Your task to perform on an android device: move an email to a new category in the gmail app Image 0: 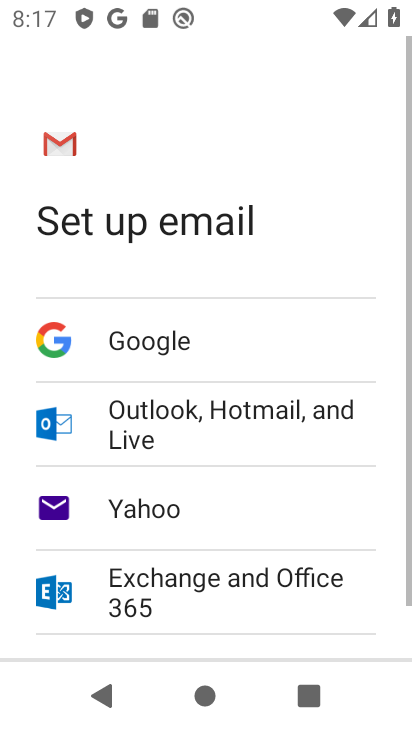
Step 0: press back button
Your task to perform on an android device: move an email to a new category in the gmail app Image 1: 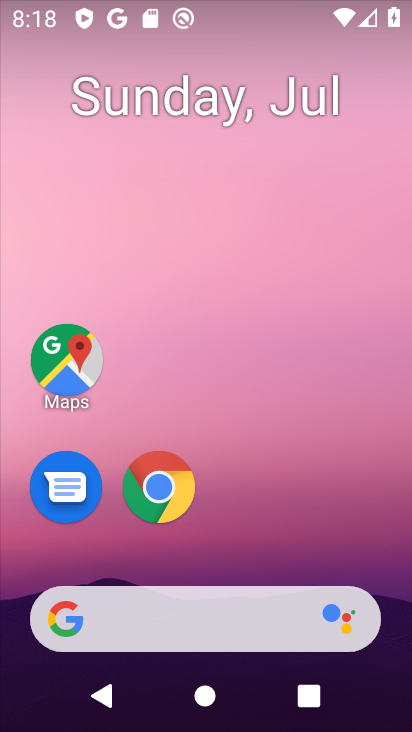
Step 1: drag from (253, 547) to (318, 63)
Your task to perform on an android device: move an email to a new category in the gmail app Image 2: 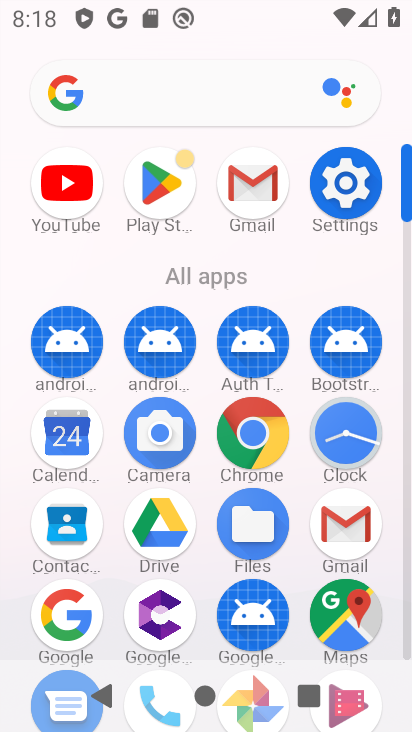
Step 2: click (265, 168)
Your task to perform on an android device: move an email to a new category in the gmail app Image 3: 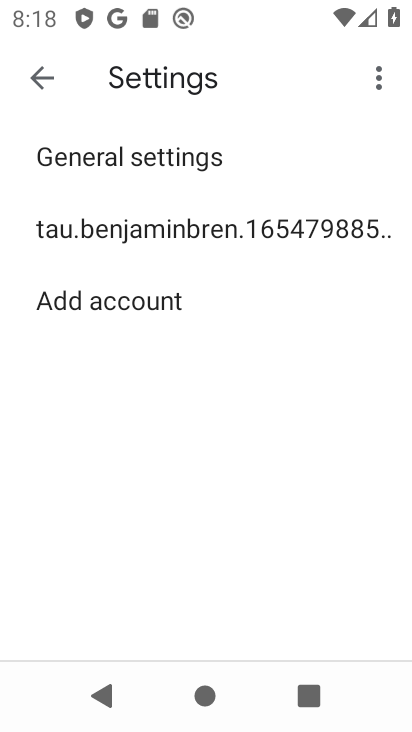
Step 3: click (45, 73)
Your task to perform on an android device: move an email to a new category in the gmail app Image 4: 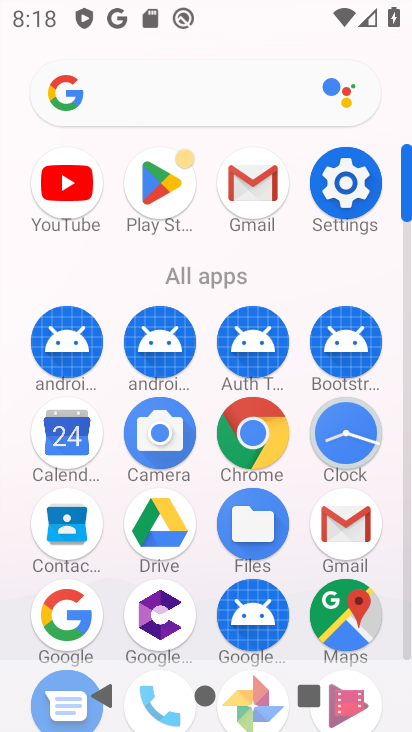
Step 4: click (255, 180)
Your task to perform on an android device: move an email to a new category in the gmail app Image 5: 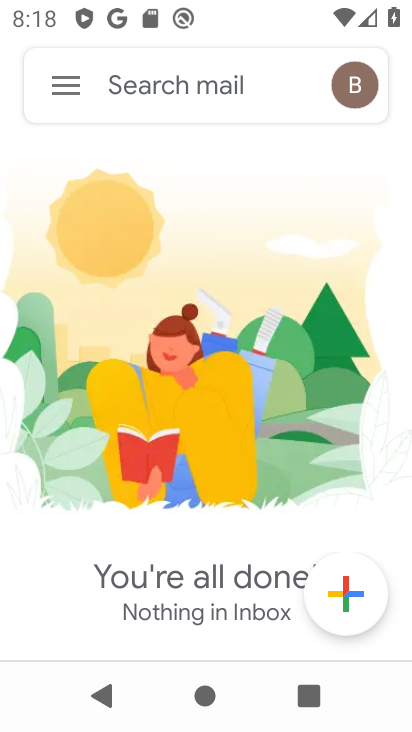
Step 5: click (49, 80)
Your task to perform on an android device: move an email to a new category in the gmail app Image 6: 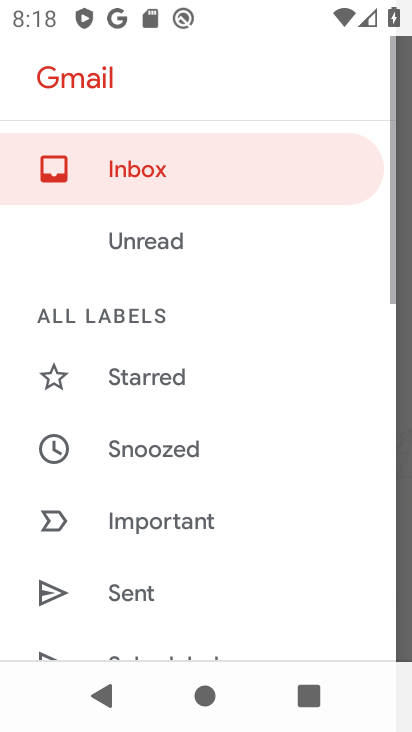
Step 6: drag from (153, 579) to (232, 147)
Your task to perform on an android device: move an email to a new category in the gmail app Image 7: 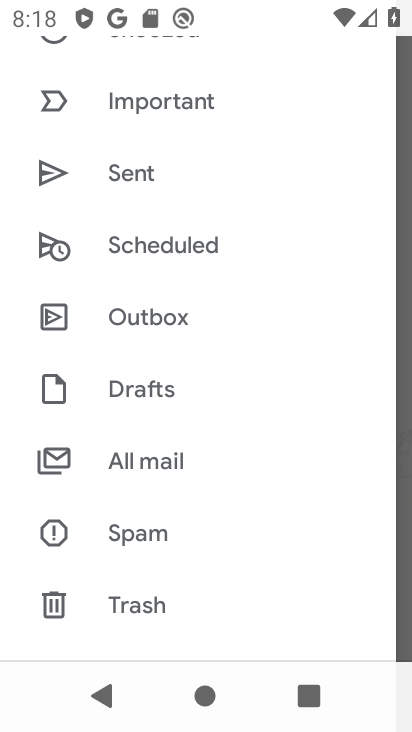
Step 7: click (152, 445)
Your task to perform on an android device: move an email to a new category in the gmail app Image 8: 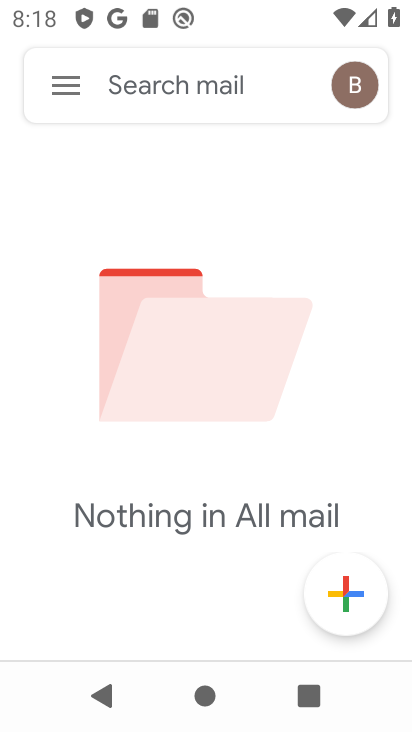
Step 8: task complete